Your task to perform on an android device: see tabs open on other devices in the chrome app Image 0: 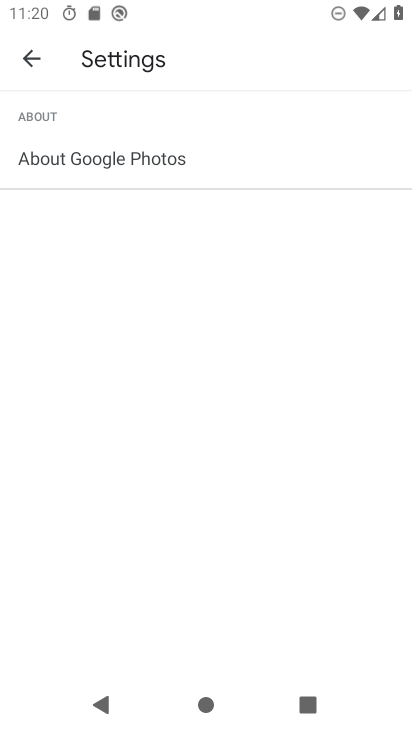
Step 0: press home button
Your task to perform on an android device: see tabs open on other devices in the chrome app Image 1: 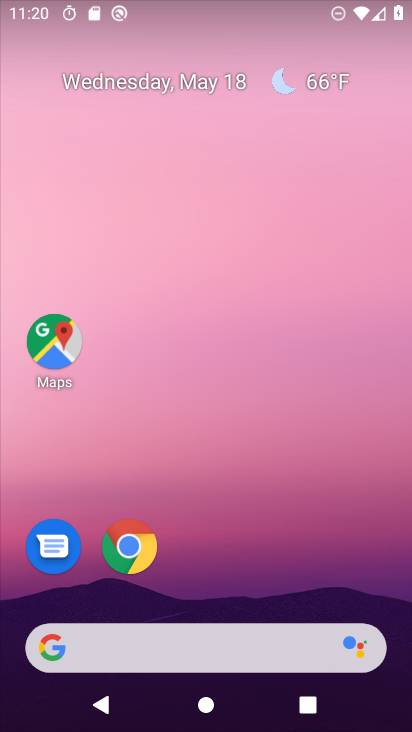
Step 1: click (118, 536)
Your task to perform on an android device: see tabs open on other devices in the chrome app Image 2: 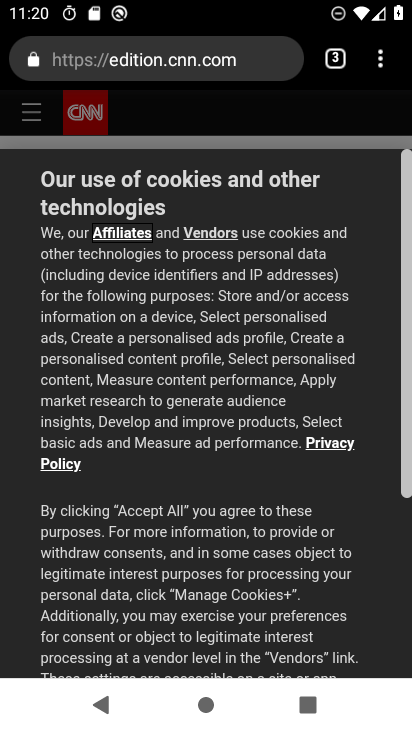
Step 2: click (390, 54)
Your task to perform on an android device: see tabs open on other devices in the chrome app Image 3: 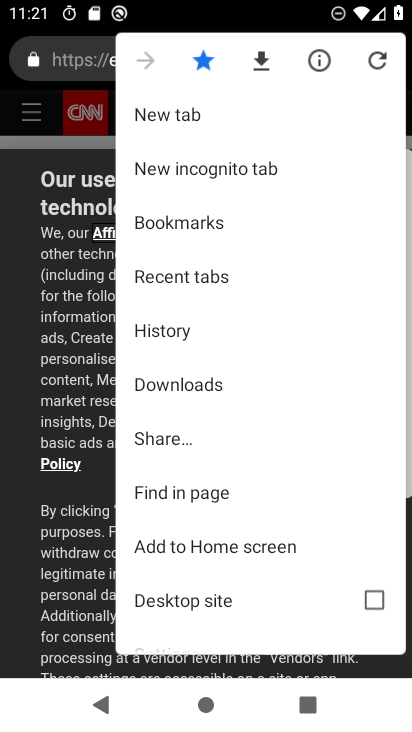
Step 3: click (191, 276)
Your task to perform on an android device: see tabs open on other devices in the chrome app Image 4: 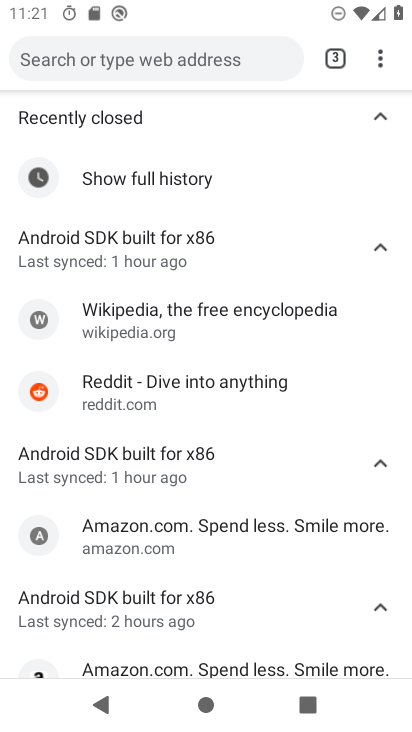
Step 4: task complete